Your task to perform on an android device: Search for the new nintendo switch on Walmart. Image 0: 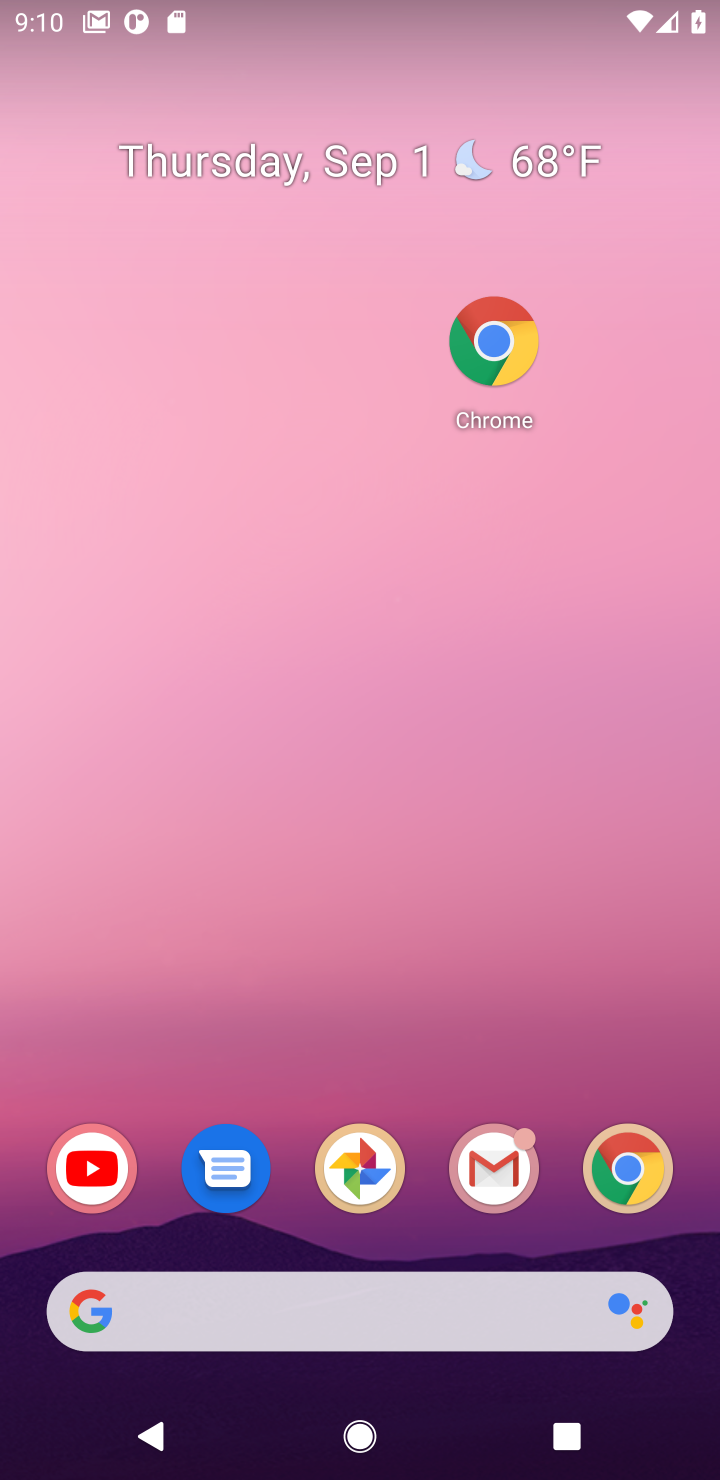
Step 0: drag from (293, 552) to (298, 393)
Your task to perform on an android device: Search for the new nintendo switch on Walmart. Image 1: 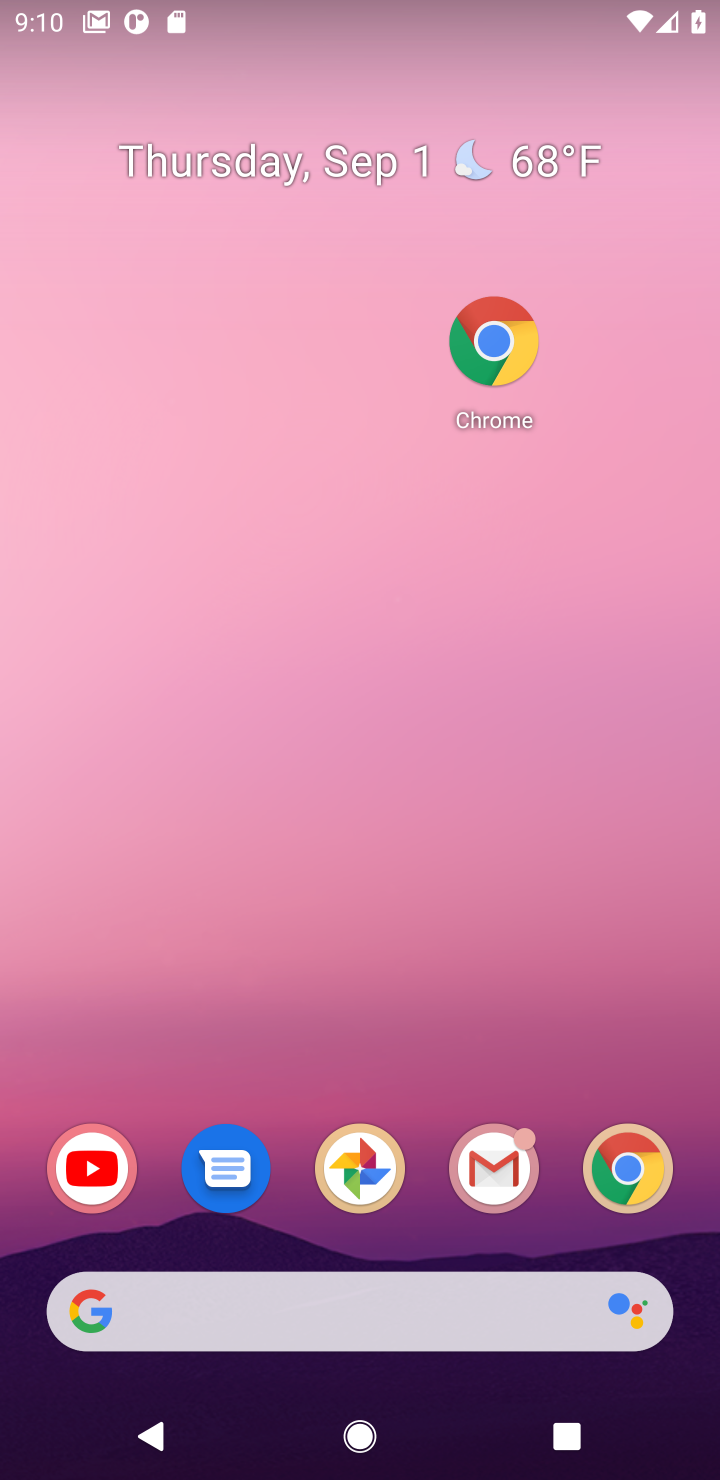
Step 1: drag from (348, 1258) to (347, 461)
Your task to perform on an android device: Search for the new nintendo switch on Walmart. Image 2: 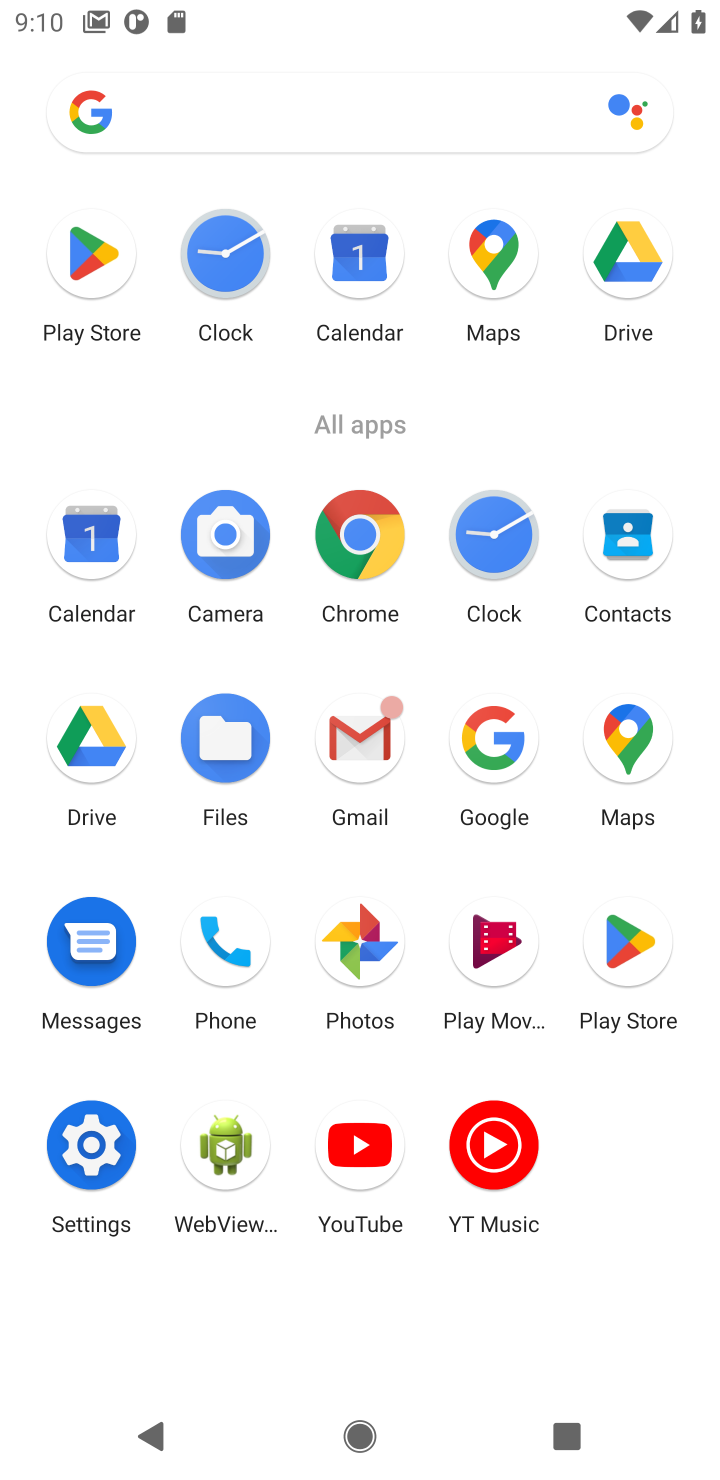
Step 2: click (489, 730)
Your task to perform on an android device: Search for the new nintendo switch on Walmart. Image 3: 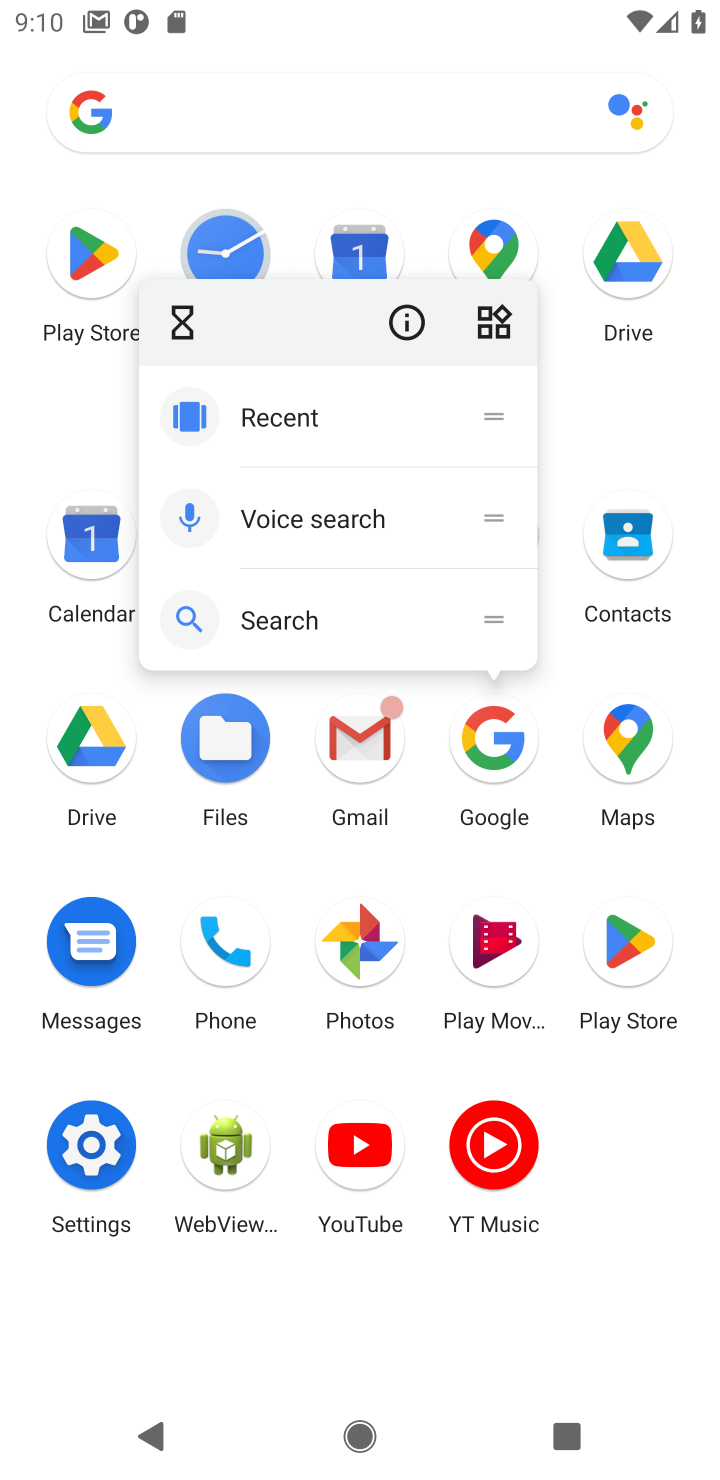
Step 3: click (465, 733)
Your task to perform on an android device: Search for the new nintendo switch on Walmart. Image 4: 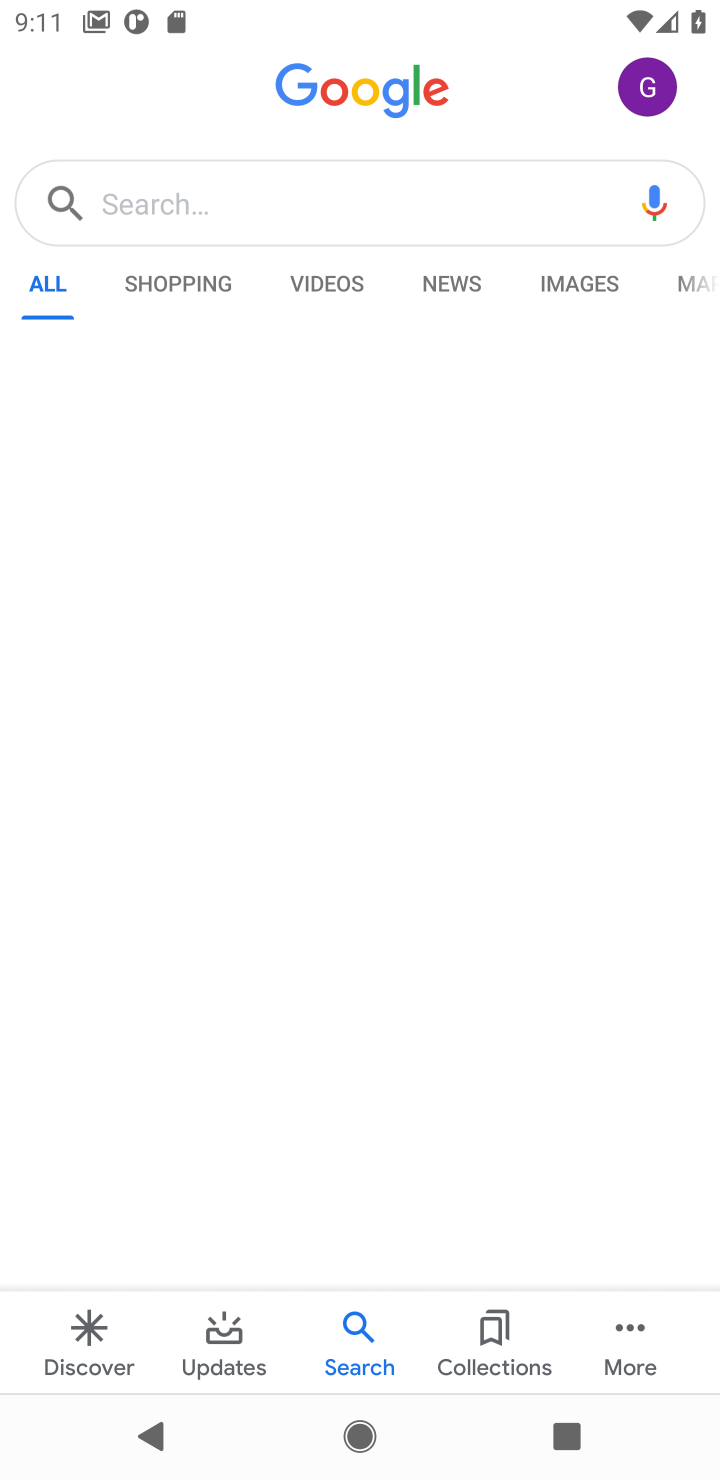
Step 4: click (365, 183)
Your task to perform on an android device: Search for the new nintendo switch on Walmart. Image 5: 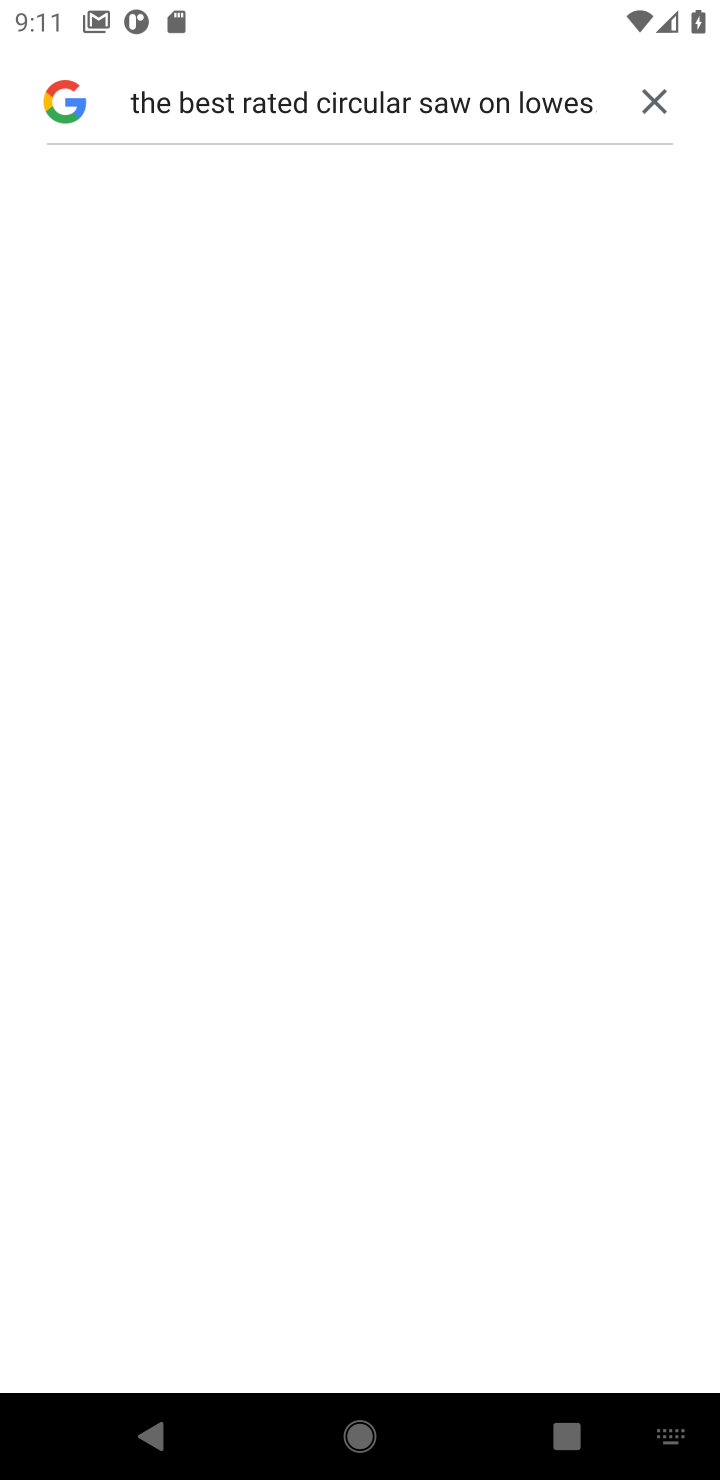
Step 5: type "Walmart  "
Your task to perform on an android device: Search for the new nintendo switch on Walmart. Image 6: 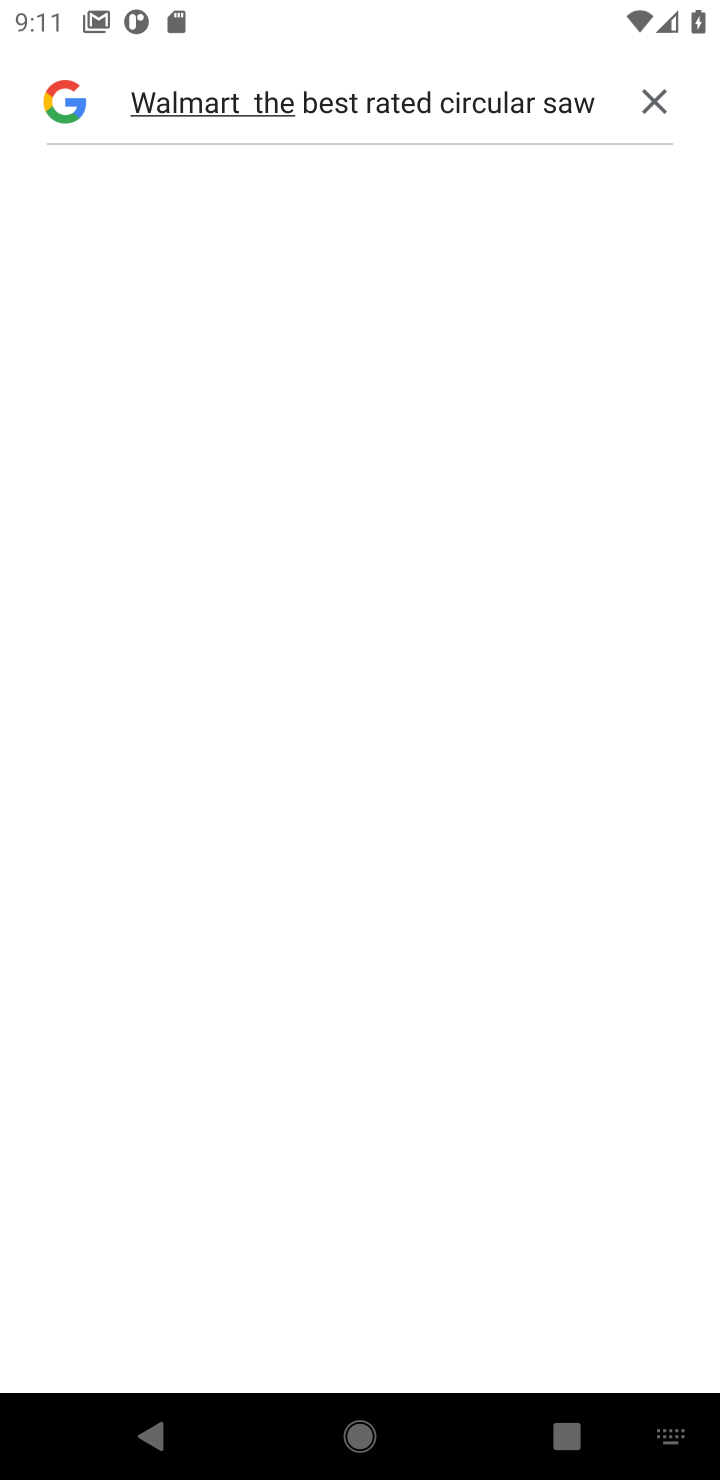
Step 6: click (644, 94)
Your task to perform on an android device: Search for the new nintendo switch on Walmart. Image 7: 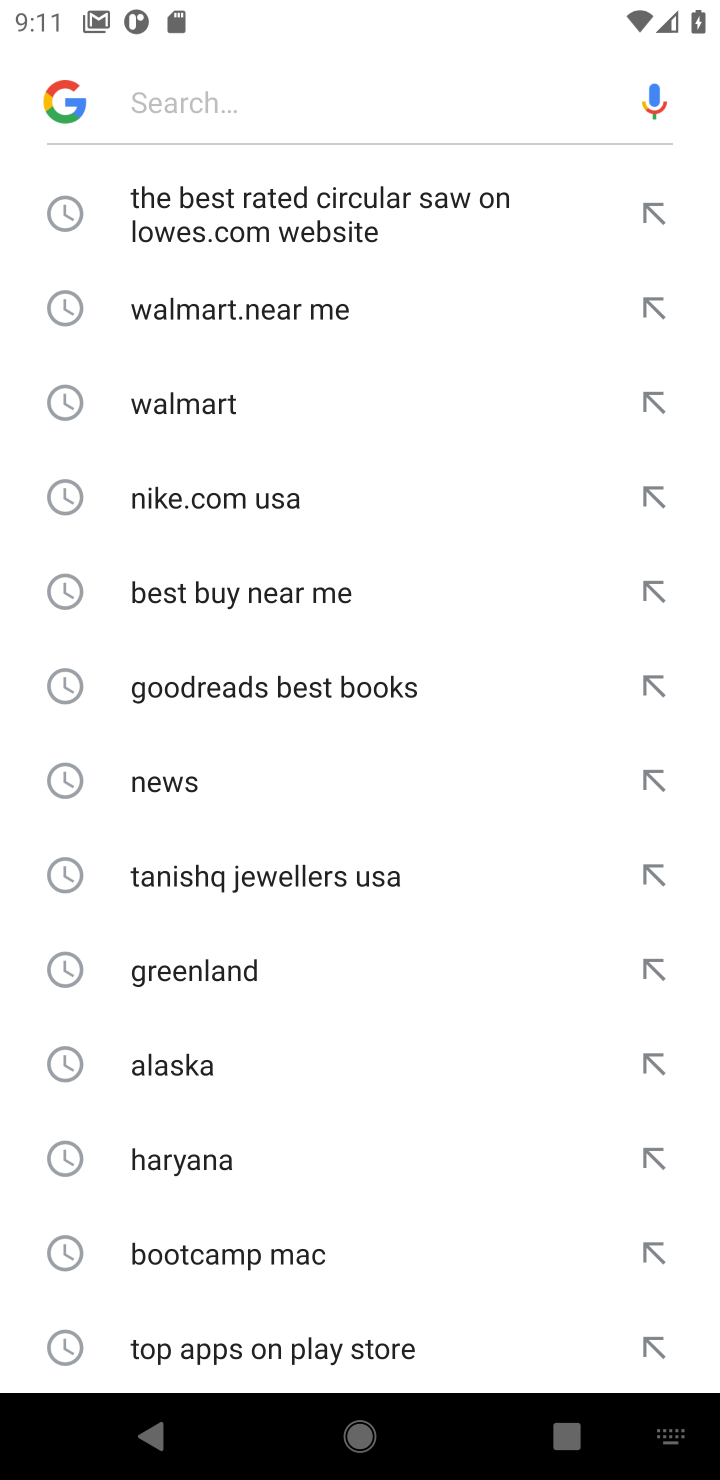
Step 7: click (151, 397)
Your task to perform on an android device: Search for the new nintendo switch on Walmart. Image 8: 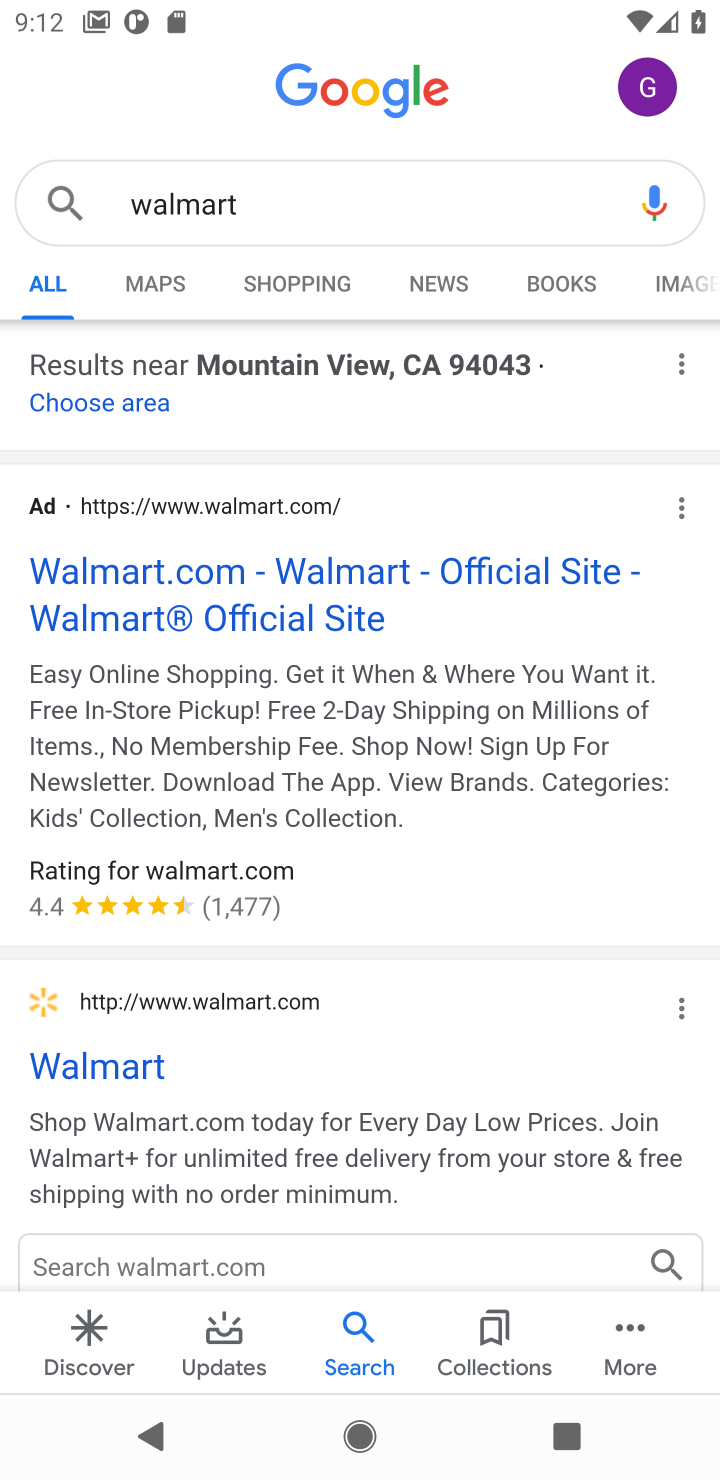
Step 8: click (95, 1060)
Your task to perform on an android device: Search for the new nintendo switch on Walmart. Image 9: 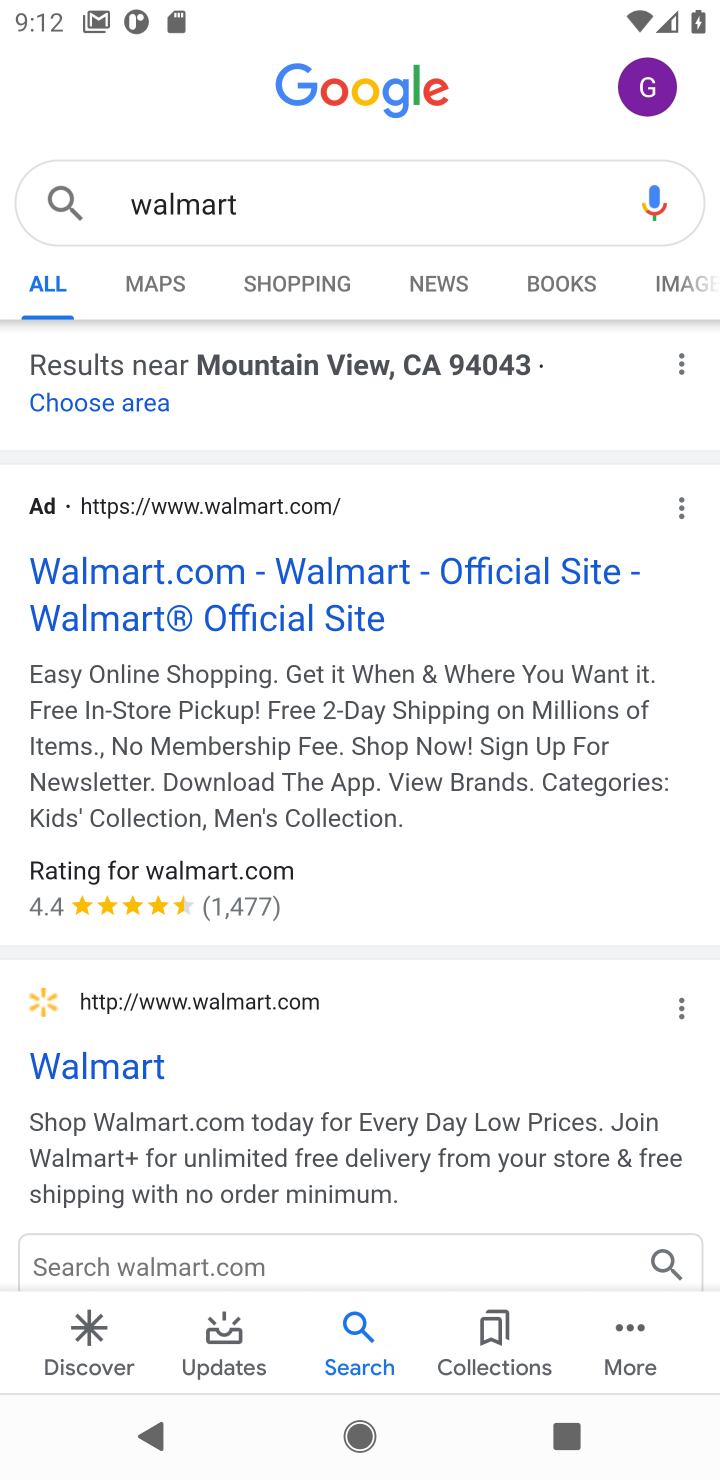
Step 9: click (258, 591)
Your task to perform on an android device: Search for the new nintendo switch on Walmart. Image 10: 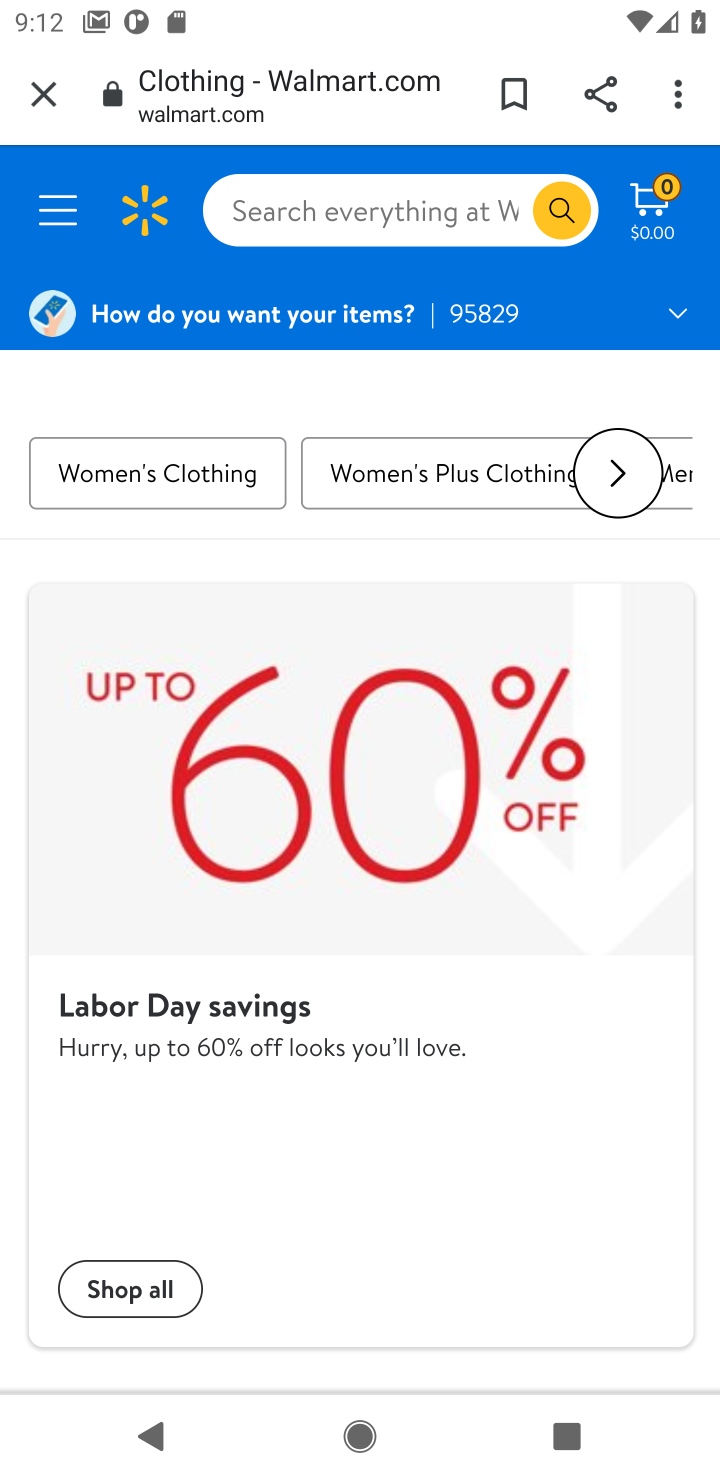
Step 10: click (337, 207)
Your task to perform on an android device: Search for the new nintendo switch on Walmart. Image 11: 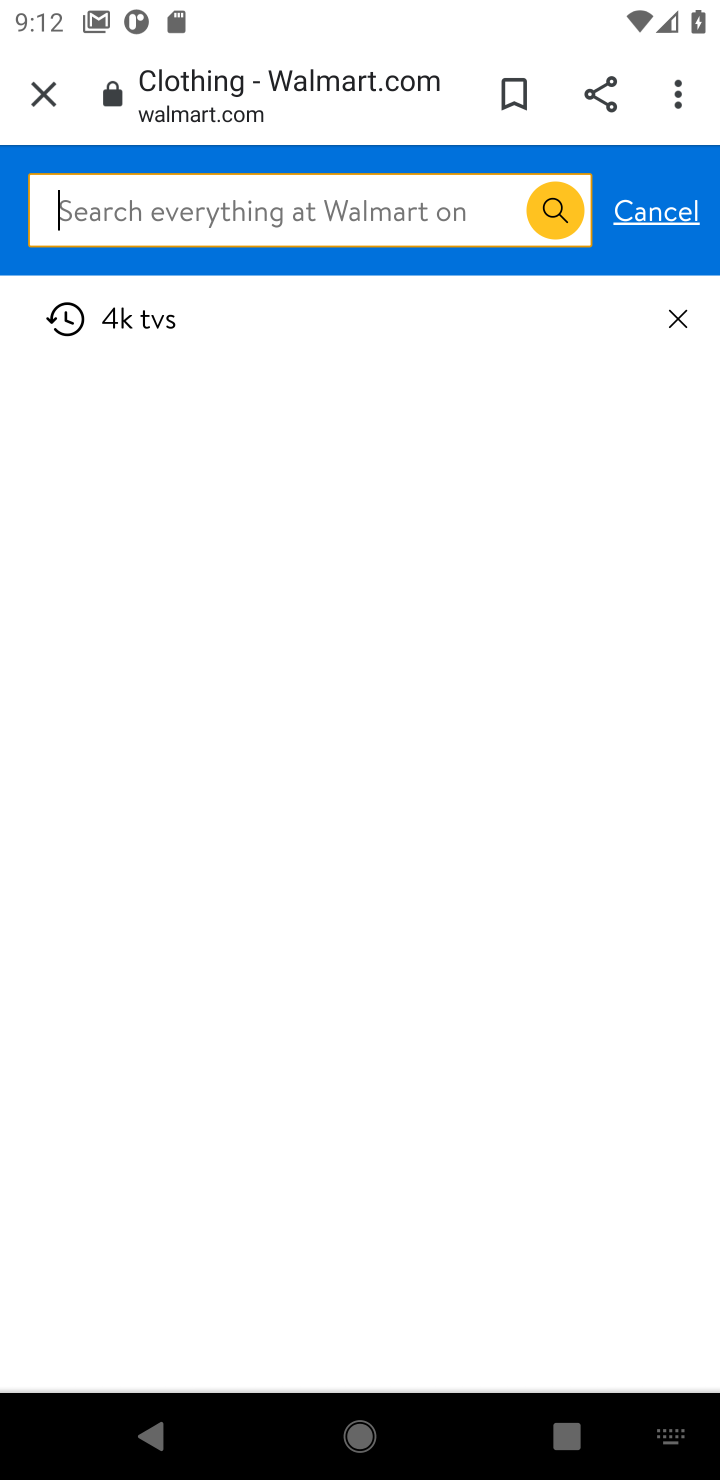
Step 11: type "the new nintendo switch "
Your task to perform on an android device: Search for the new nintendo switch on Walmart. Image 12: 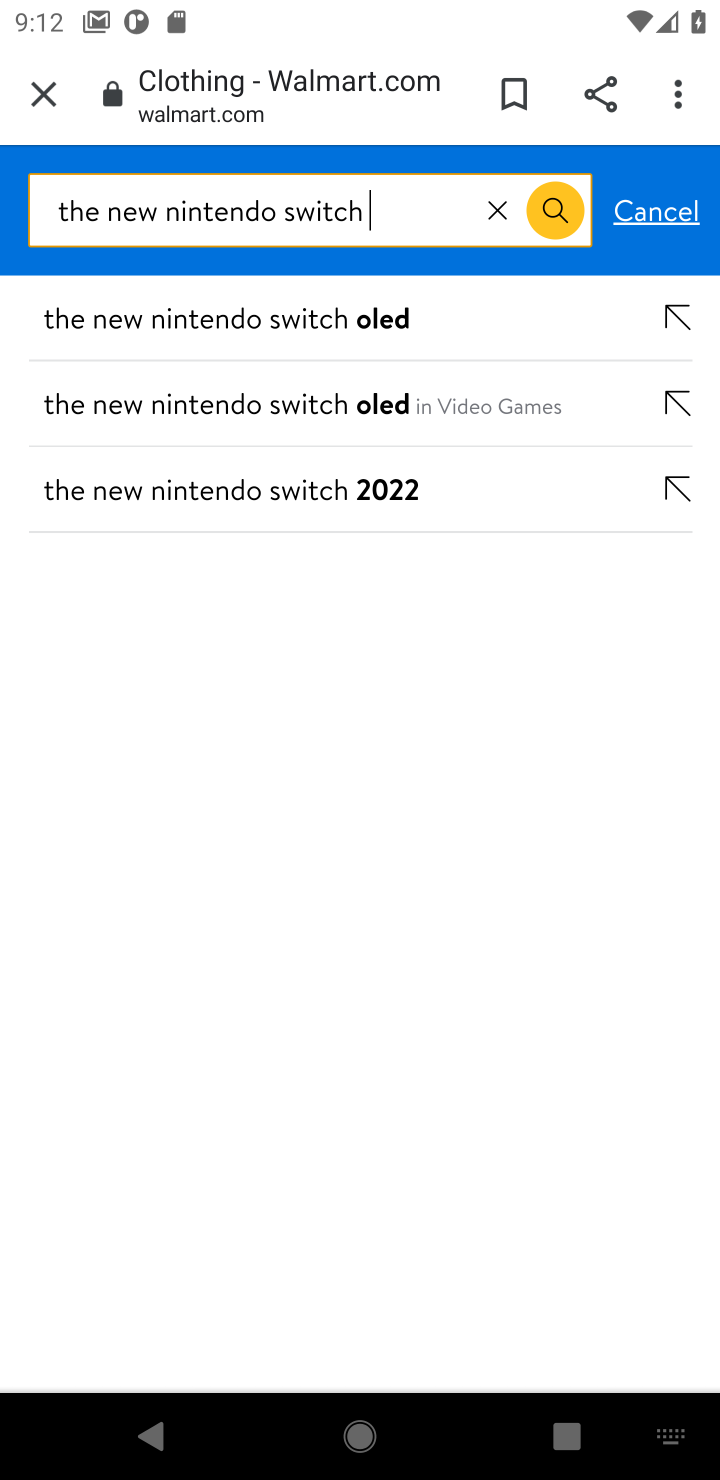
Step 12: click (348, 314)
Your task to perform on an android device: Search for the new nintendo switch on Walmart. Image 13: 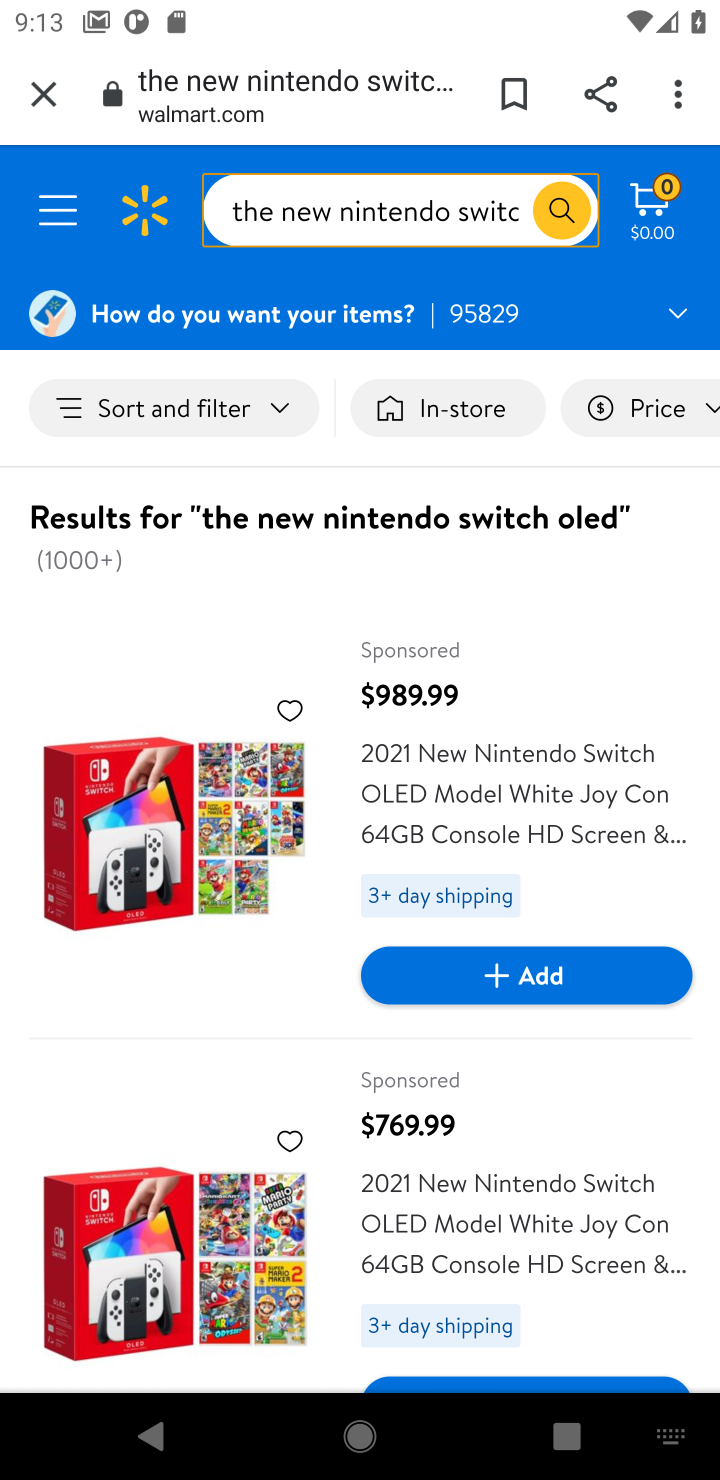
Step 13: task complete